Your task to perform on an android device: Go to CNN.com Image 0: 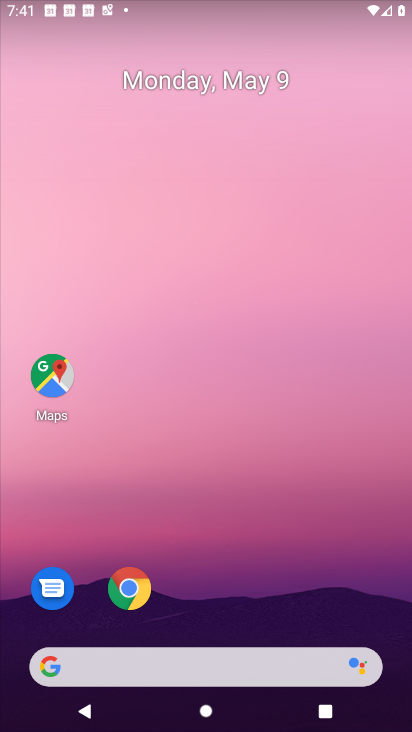
Step 0: press home button
Your task to perform on an android device: Go to CNN.com Image 1: 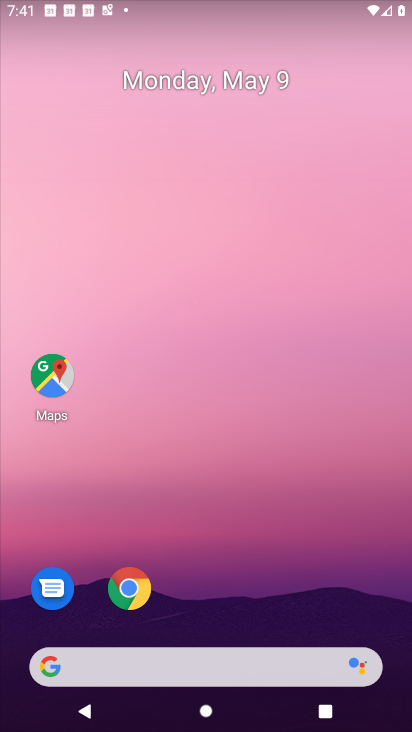
Step 1: drag from (168, 665) to (325, 134)
Your task to perform on an android device: Go to CNN.com Image 2: 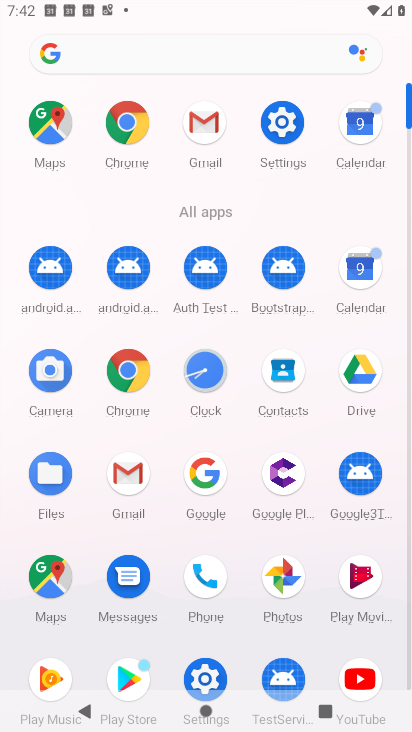
Step 2: click (134, 131)
Your task to perform on an android device: Go to CNN.com Image 3: 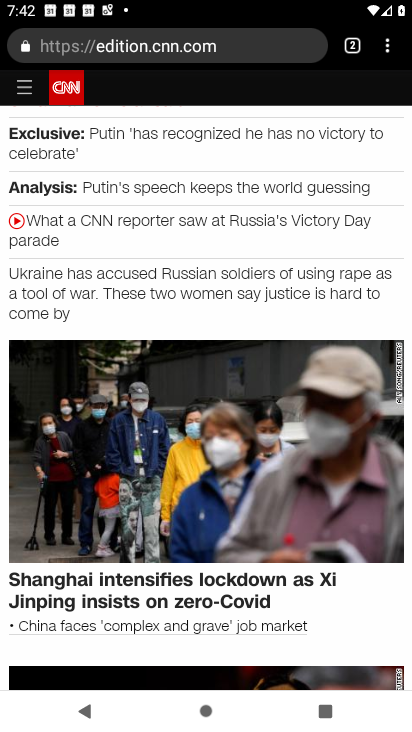
Step 3: task complete